Your task to perform on an android device: When is my next meeting? Image 0: 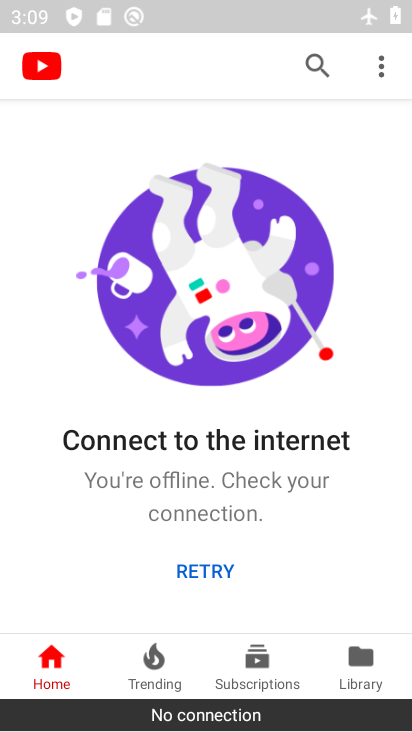
Step 0: press home button
Your task to perform on an android device: When is my next meeting? Image 1: 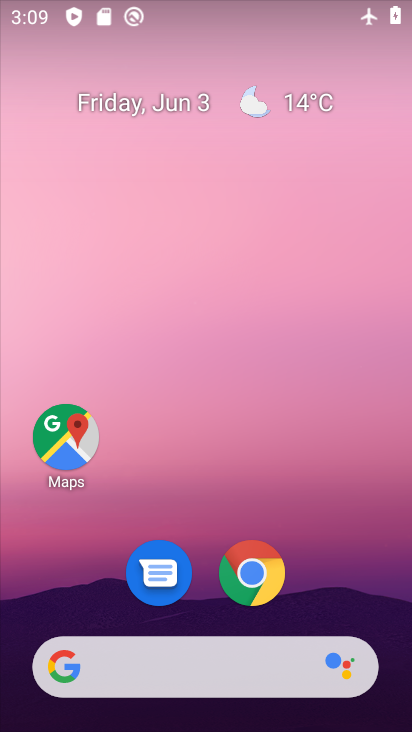
Step 1: drag from (209, 542) to (286, 106)
Your task to perform on an android device: When is my next meeting? Image 2: 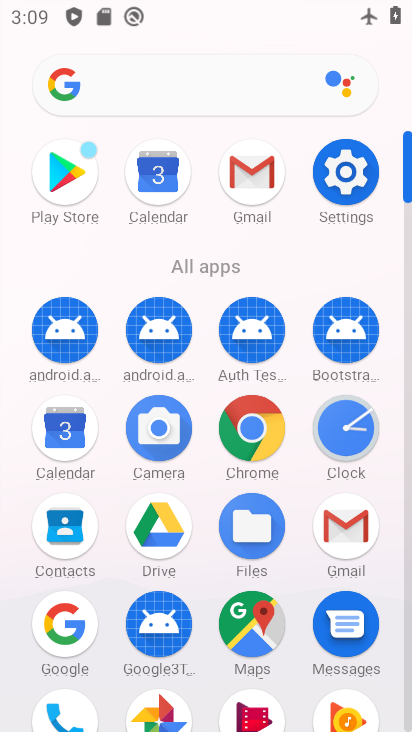
Step 2: click (45, 445)
Your task to perform on an android device: When is my next meeting? Image 3: 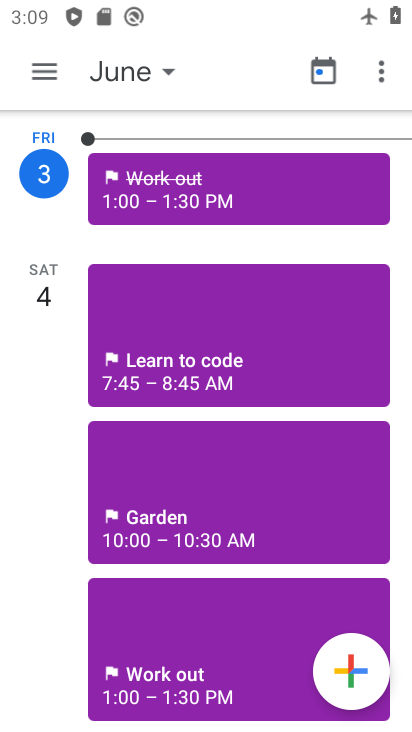
Step 3: click (43, 72)
Your task to perform on an android device: When is my next meeting? Image 4: 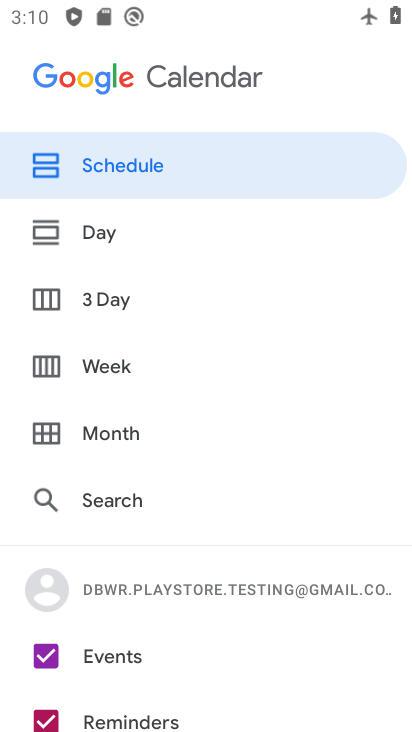
Step 4: drag from (142, 512) to (227, 245)
Your task to perform on an android device: When is my next meeting? Image 5: 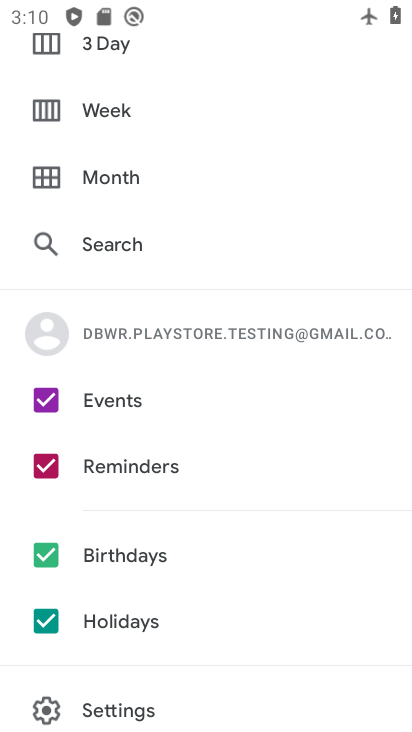
Step 5: click (114, 628)
Your task to perform on an android device: When is my next meeting? Image 6: 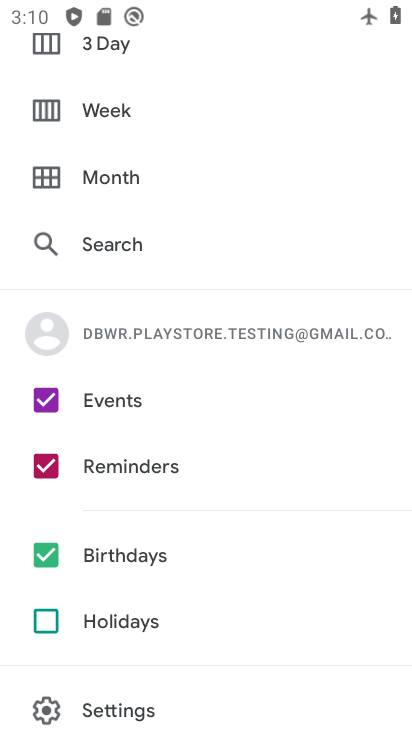
Step 6: click (94, 549)
Your task to perform on an android device: When is my next meeting? Image 7: 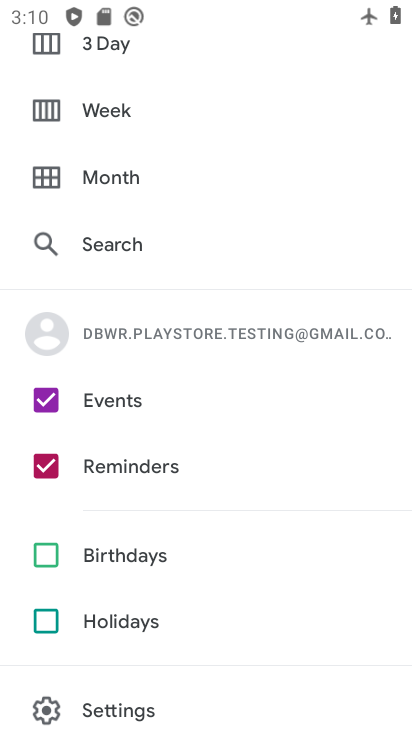
Step 7: task complete